Your task to perform on an android device: turn notification dots off Image 0: 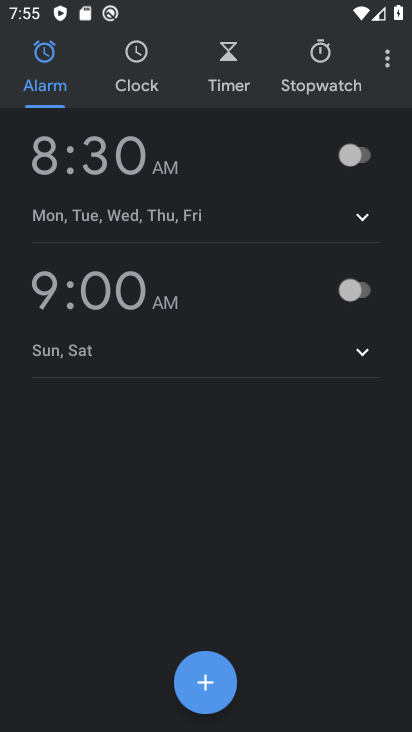
Step 0: click (374, 602)
Your task to perform on an android device: turn notification dots off Image 1: 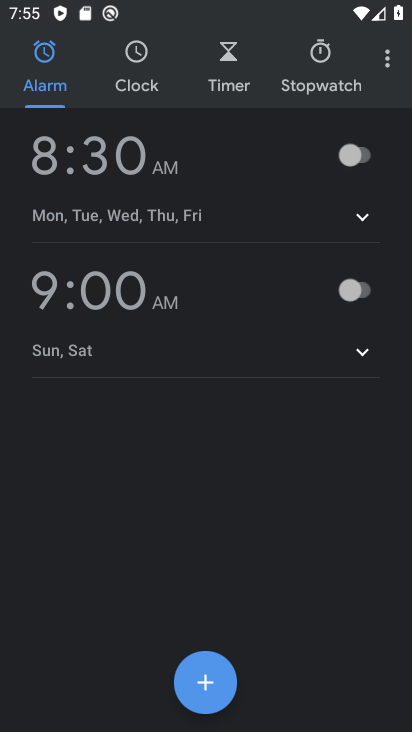
Step 1: press home button
Your task to perform on an android device: turn notification dots off Image 2: 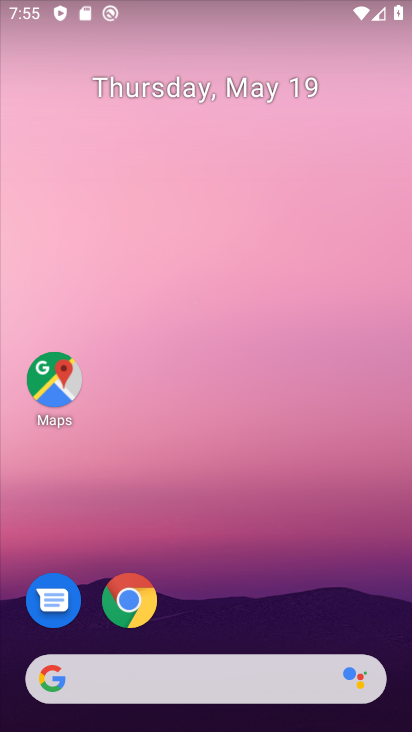
Step 2: drag from (358, 606) to (380, 211)
Your task to perform on an android device: turn notification dots off Image 3: 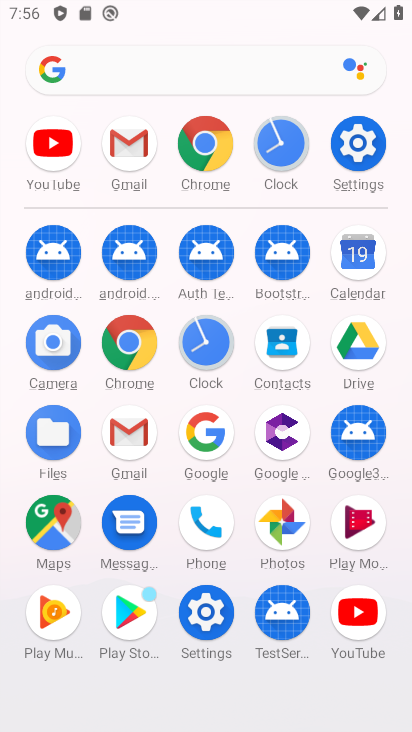
Step 3: click (366, 158)
Your task to perform on an android device: turn notification dots off Image 4: 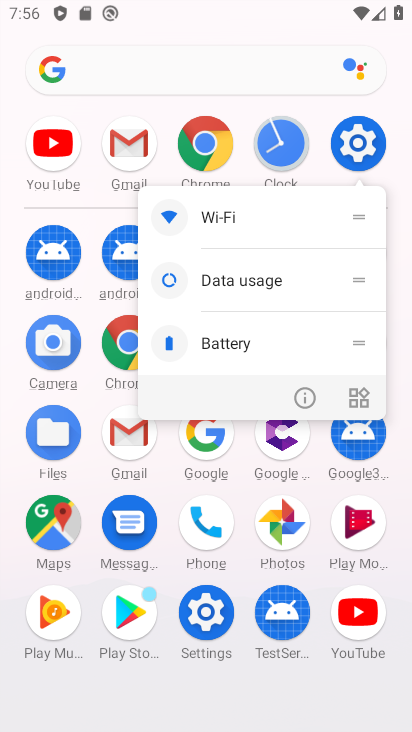
Step 4: click (366, 158)
Your task to perform on an android device: turn notification dots off Image 5: 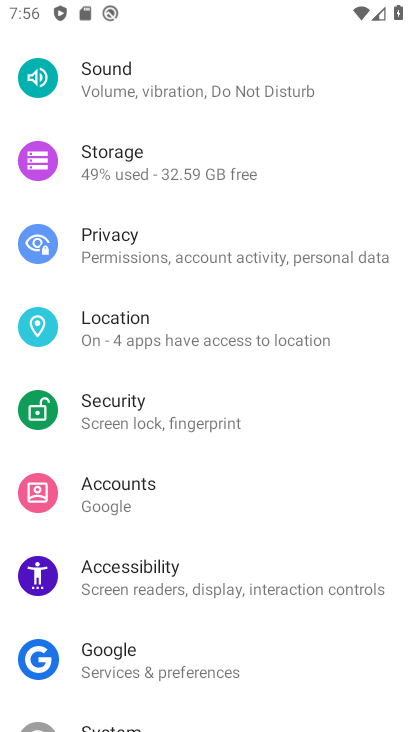
Step 5: drag from (350, 479) to (369, 356)
Your task to perform on an android device: turn notification dots off Image 6: 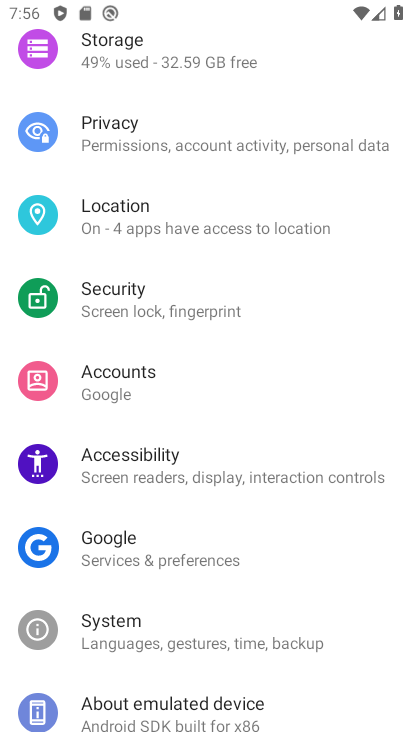
Step 6: drag from (326, 588) to (343, 422)
Your task to perform on an android device: turn notification dots off Image 7: 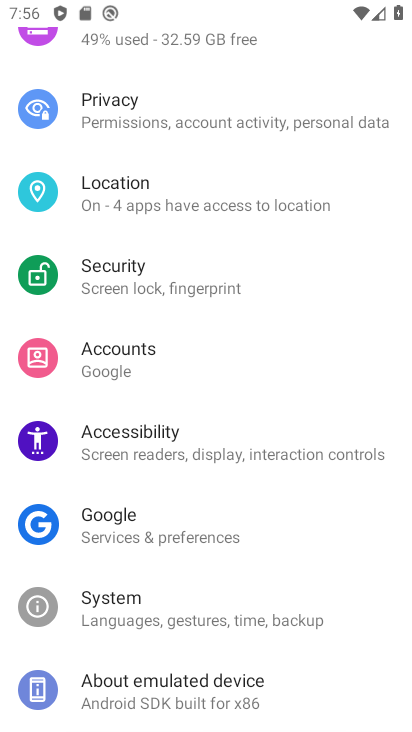
Step 7: drag from (356, 350) to (337, 454)
Your task to perform on an android device: turn notification dots off Image 8: 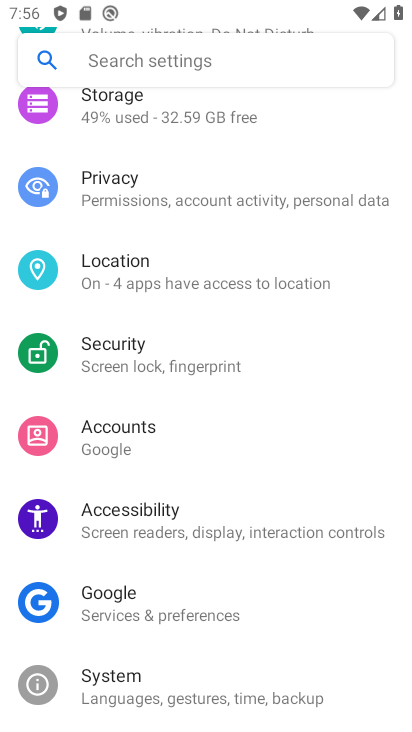
Step 8: drag from (345, 320) to (346, 414)
Your task to perform on an android device: turn notification dots off Image 9: 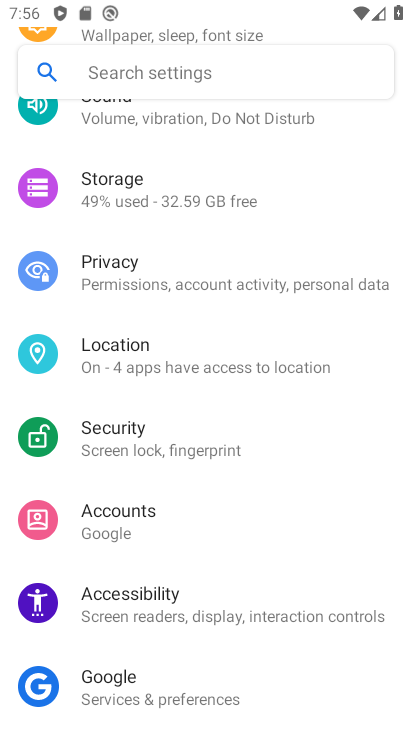
Step 9: drag from (345, 298) to (334, 394)
Your task to perform on an android device: turn notification dots off Image 10: 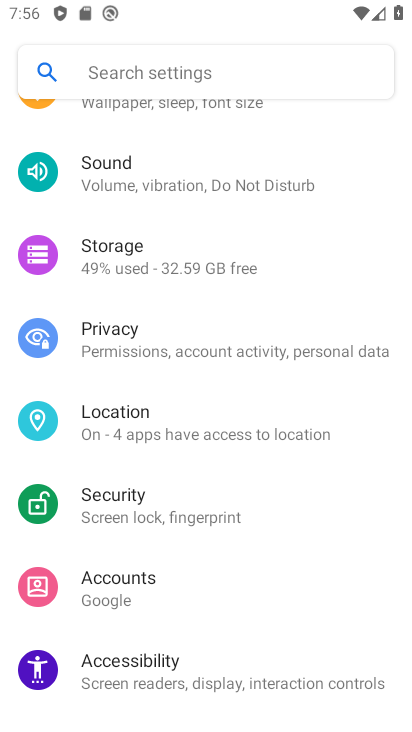
Step 10: drag from (334, 276) to (330, 374)
Your task to perform on an android device: turn notification dots off Image 11: 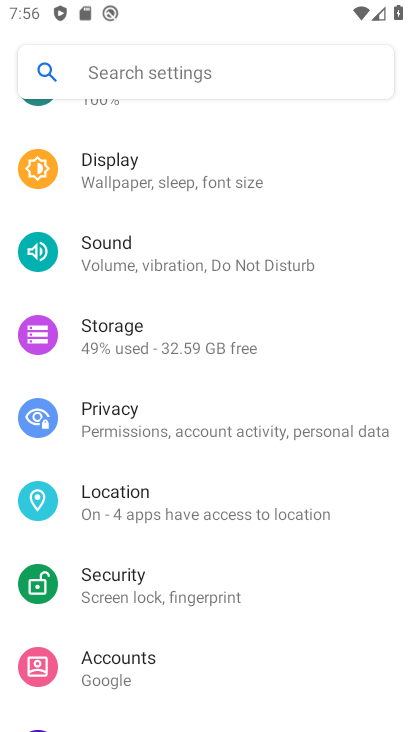
Step 11: drag from (331, 249) to (324, 345)
Your task to perform on an android device: turn notification dots off Image 12: 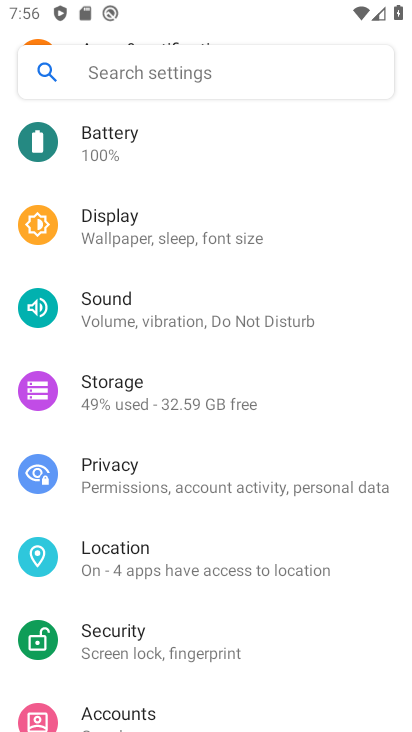
Step 12: drag from (323, 246) to (322, 342)
Your task to perform on an android device: turn notification dots off Image 13: 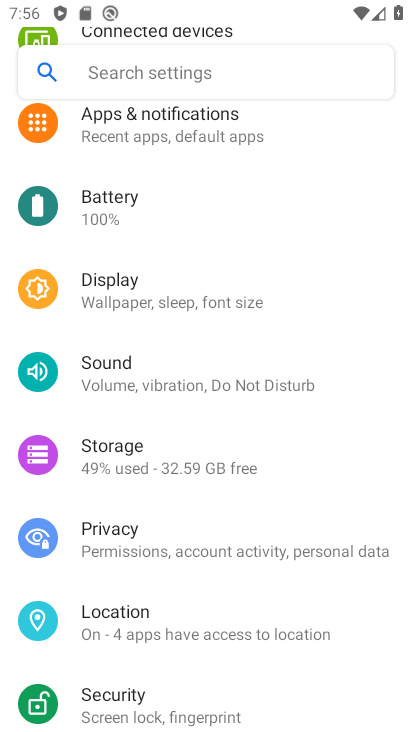
Step 13: drag from (331, 222) to (307, 344)
Your task to perform on an android device: turn notification dots off Image 14: 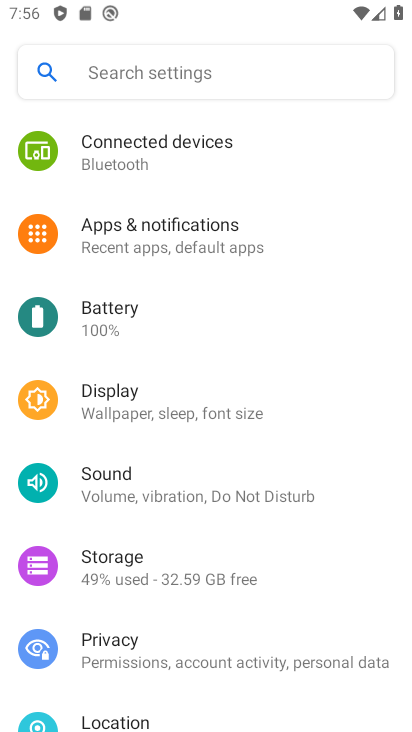
Step 14: drag from (336, 202) to (320, 306)
Your task to perform on an android device: turn notification dots off Image 15: 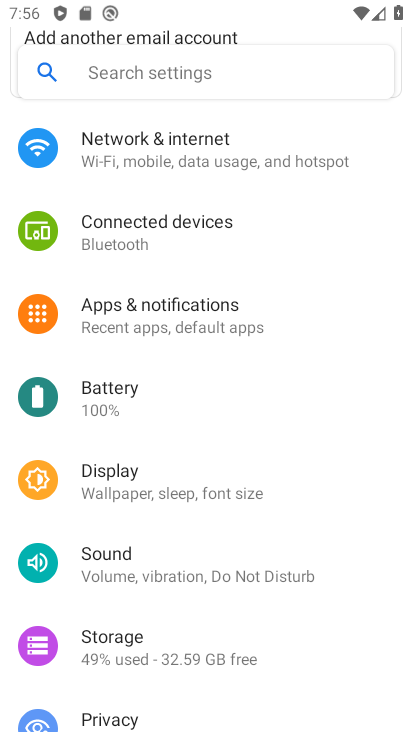
Step 15: click (246, 316)
Your task to perform on an android device: turn notification dots off Image 16: 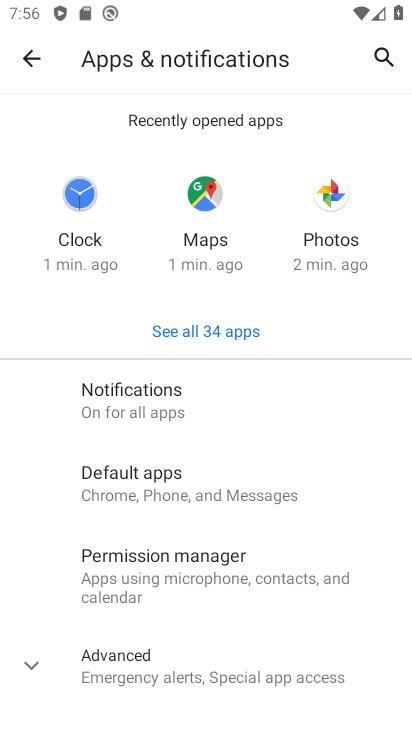
Step 16: click (174, 400)
Your task to perform on an android device: turn notification dots off Image 17: 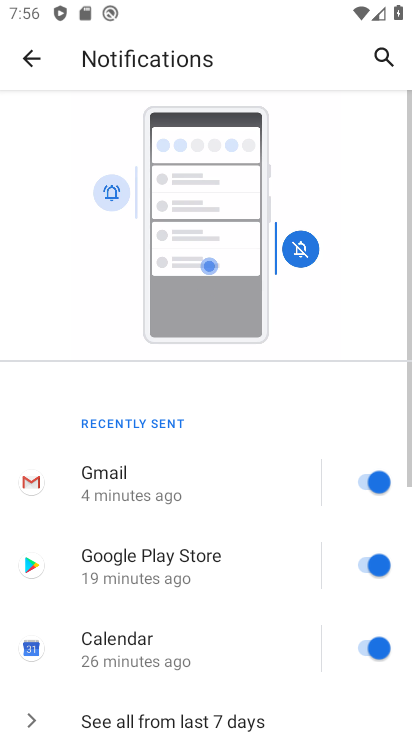
Step 17: drag from (286, 415) to (308, 311)
Your task to perform on an android device: turn notification dots off Image 18: 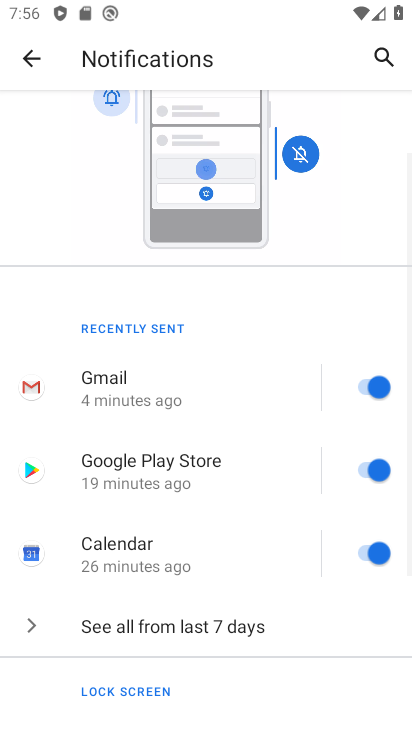
Step 18: drag from (273, 449) to (289, 319)
Your task to perform on an android device: turn notification dots off Image 19: 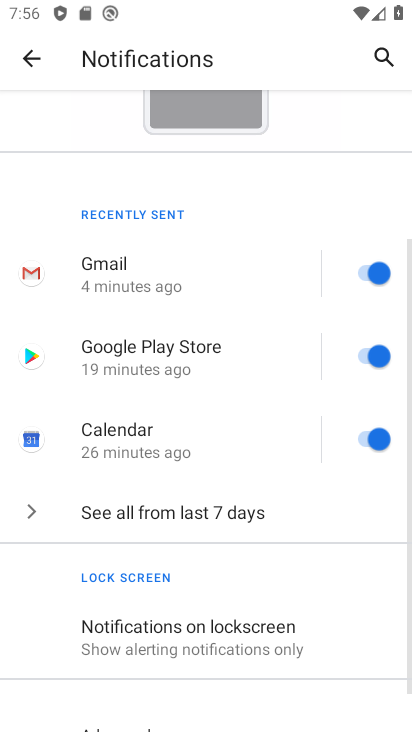
Step 19: drag from (266, 487) to (275, 370)
Your task to perform on an android device: turn notification dots off Image 20: 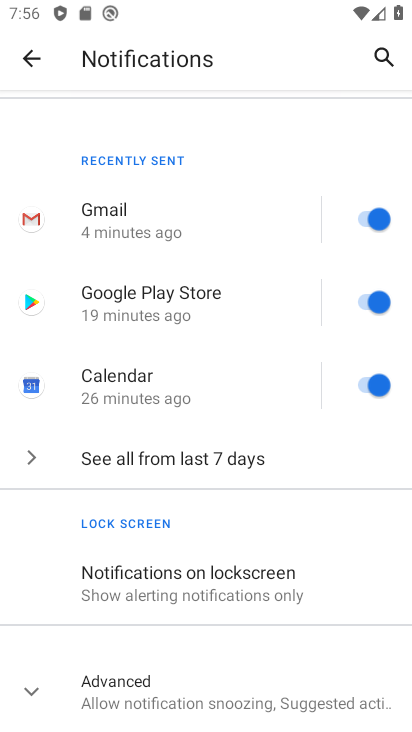
Step 20: drag from (285, 502) to (301, 382)
Your task to perform on an android device: turn notification dots off Image 21: 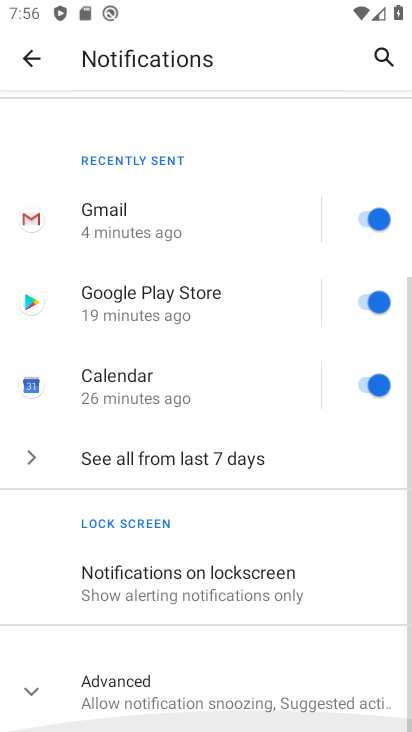
Step 21: click (203, 702)
Your task to perform on an android device: turn notification dots off Image 22: 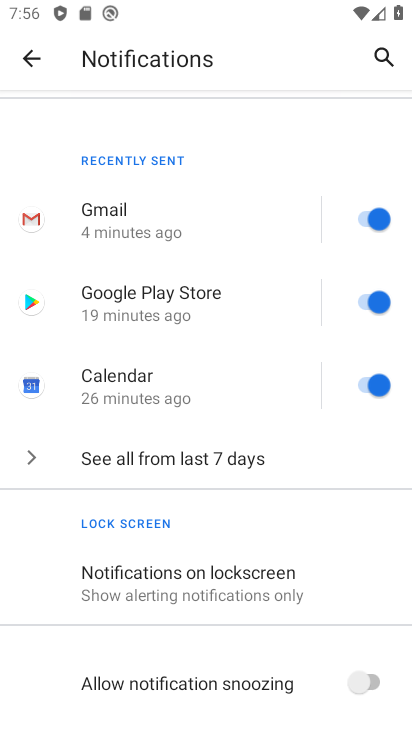
Step 22: drag from (267, 599) to (305, 430)
Your task to perform on an android device: turn notification dots off Image 23: 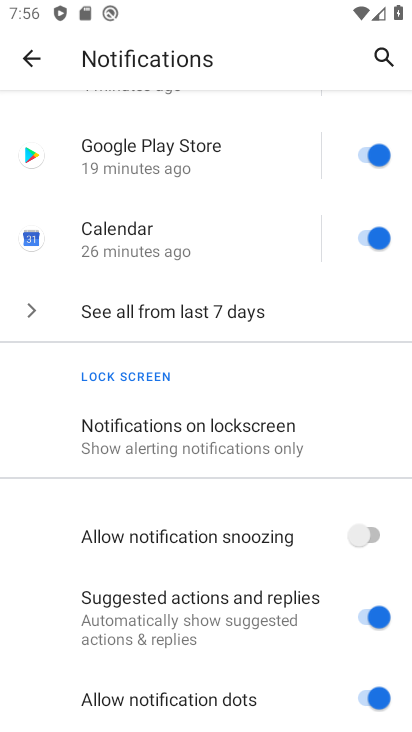
Step 23: drag from (281, 641) to (294, 511)
Your task to perform on an android device: turn notification dots off Image 24: 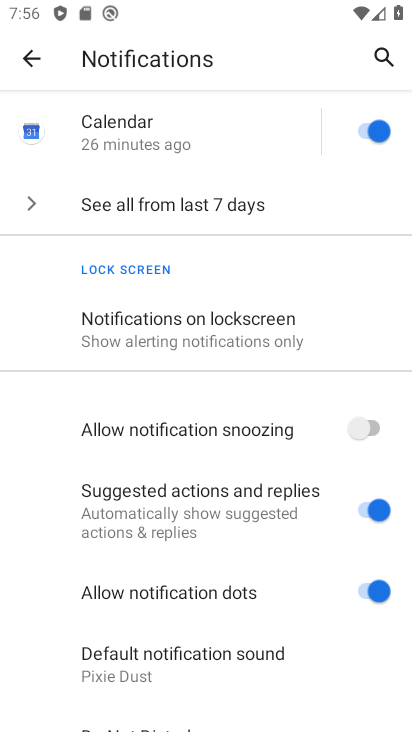
Step 24: drag from (301, 681) to (317, 569)
Your task to perform on an android device: turn notification dots off Image 25: 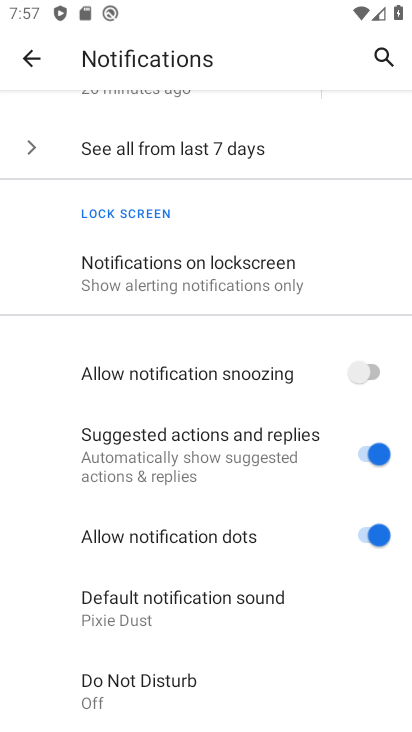
Step 25: click (378, 537)
Your task to perform on an android device: turn notification dots off Image 26: 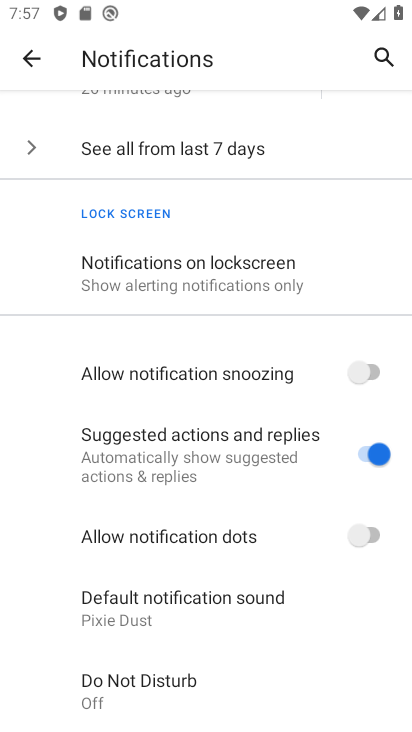
Step 26: task complete